Your task to perform on an android device: allow notifications from all sites in the chrome app Image 0: 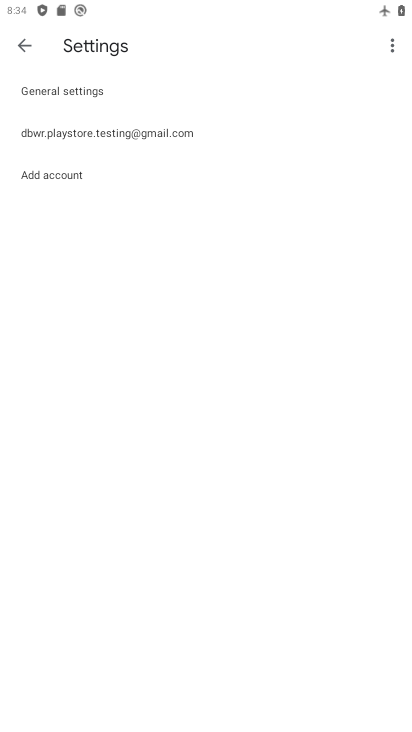
Step 0: press home button
Your task to perform on an android device: allow notifications from all sites in the chrome app Image 1: 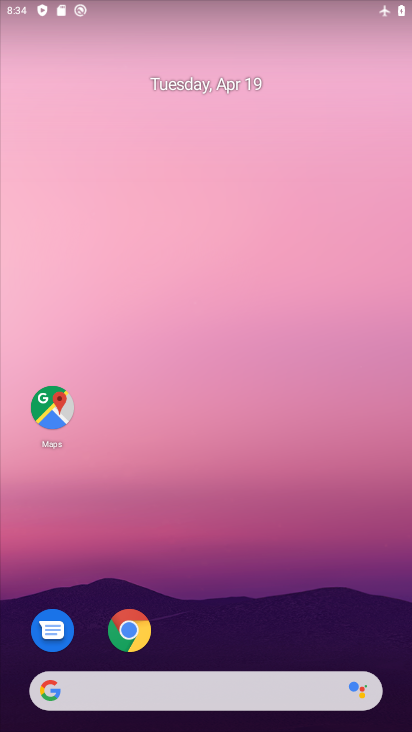
Step 1: click (135, 639)
Your task to perform on an android device: allow notifications from all sites in the chrome app Image 2: 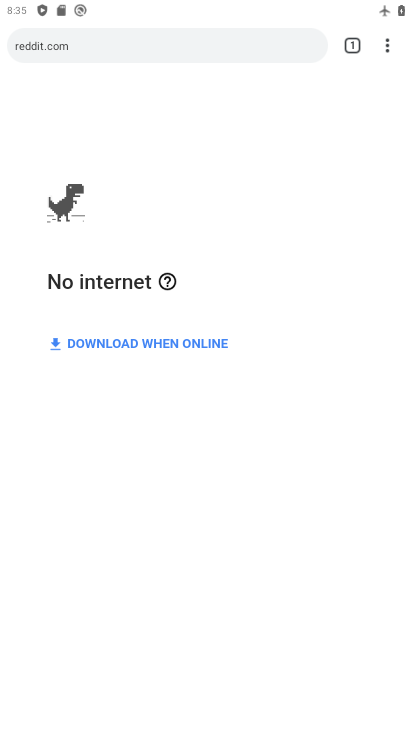
Step 2: click (391, 55)
Your task to perform on an android device: allow notifications from all sites in the chrome app Image 3: 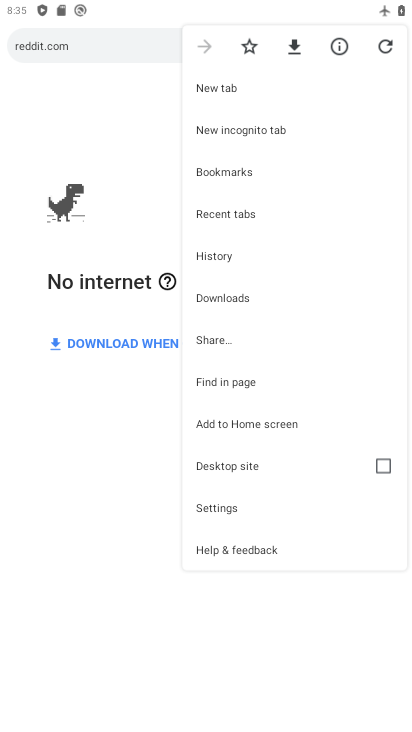
Step 3: click (245, 513)
Your task to perform on an android device: allow notifications from all sites in the chrome app Image 4: 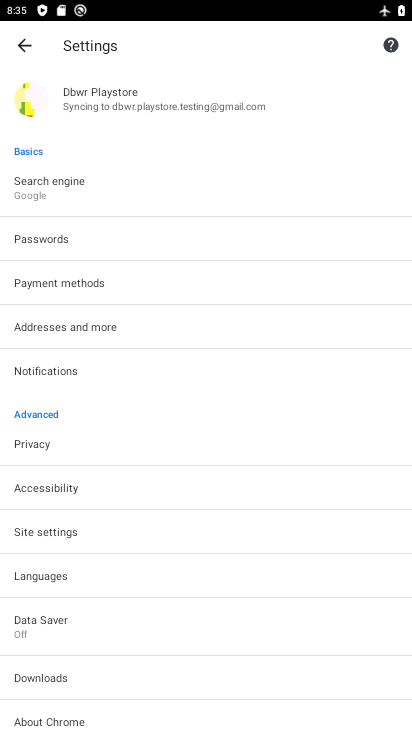
Step 4: drag from (189, 614) to (219, 358)
Your task to perform on an android device: allow notifications from all sites in the chrome app Image 5: 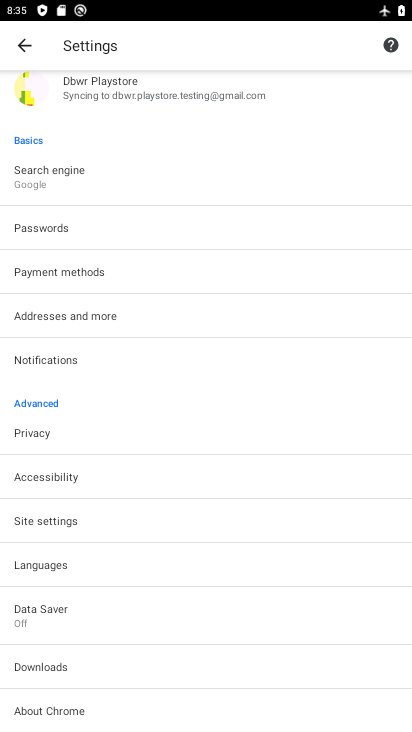
Step 5: click (76, 356)
Your task to perform on an android device: allow notifications from all sites in the chrome app Image 6: 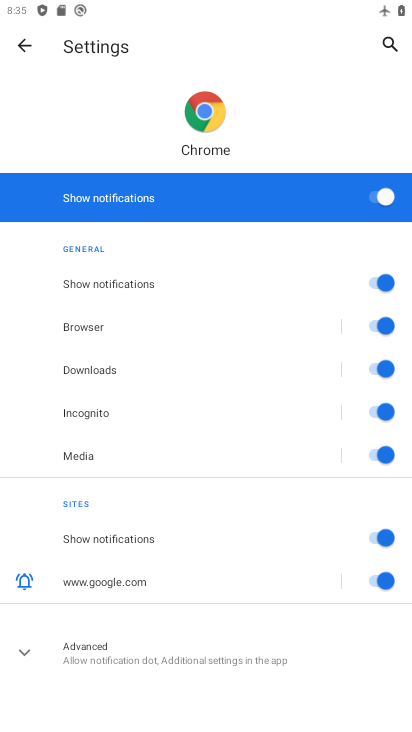
Step 6: drag from (220, 559) to (298, 162)
Your task to perform on an android device: allow notifications from all sites in the chrome app Image 7: 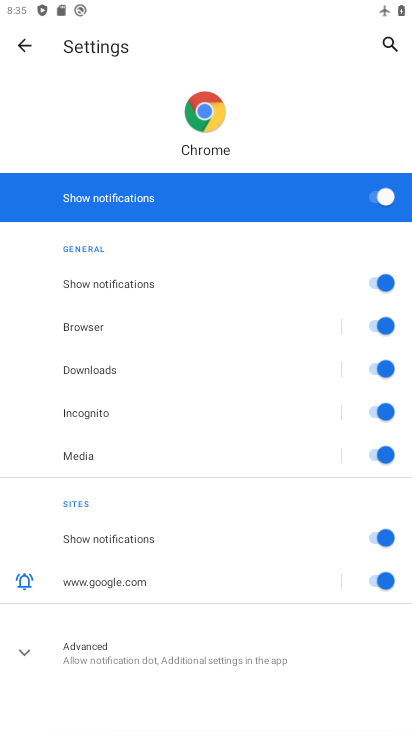
Step 7: click (195, 659)
Your task to perform on an android device: allow notifications from all sites in the chrome app Image 8: 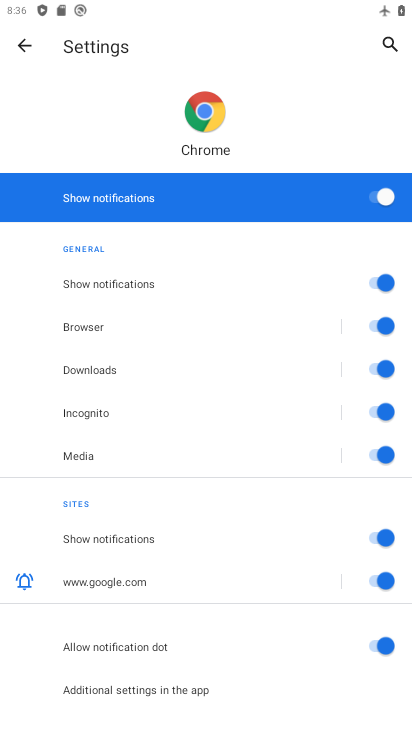
Step 8: task complete